Your task to perform on an android device: toggle wifi Image 0: 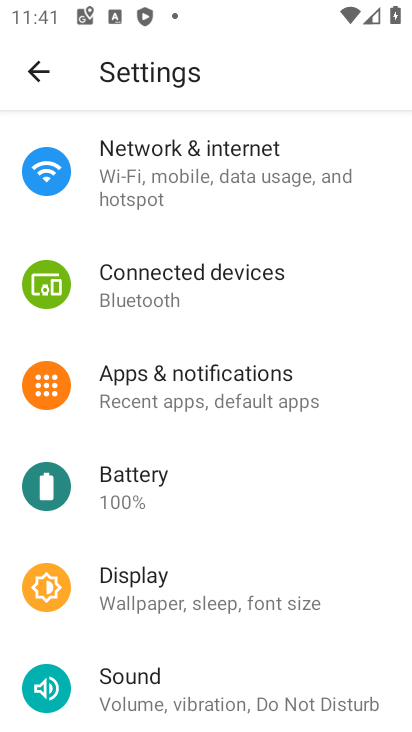
Step 0: drag from (145, 221) to (304, 684)
Your task to perform on an android device: toggle wifi Image 1: 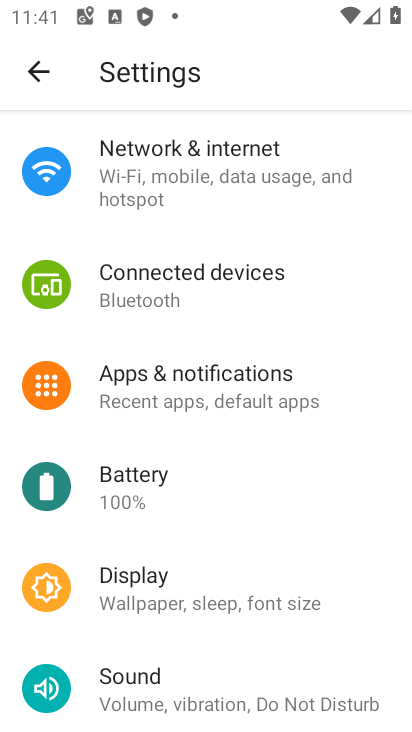
Step 1: click (181, 175)
Your task to perform on an android device: toggle wifi Image 2: 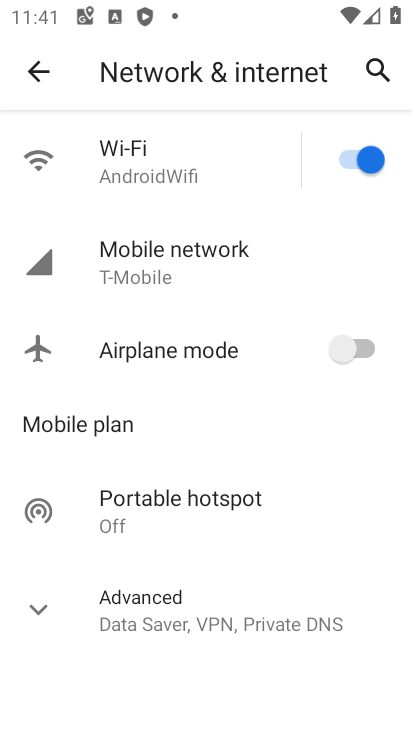
Step 2: click (337, 167)
Your task to perform on an android device: toggle wifi Image 3: 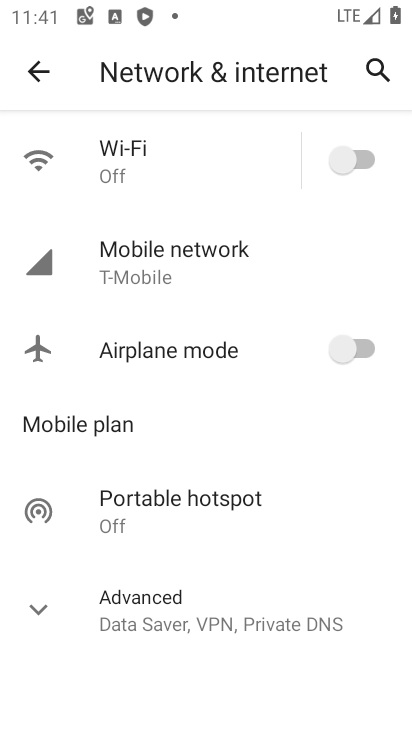
Step 3: task complete